Your task to perform on an android device: open chrome privacy settings Image 0: 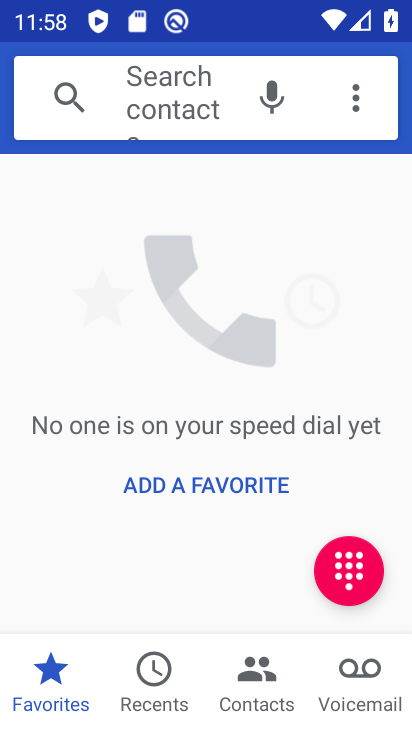
Step 0: press home button
Your task to perform on an android device: open chrome privacy settings Image 1: 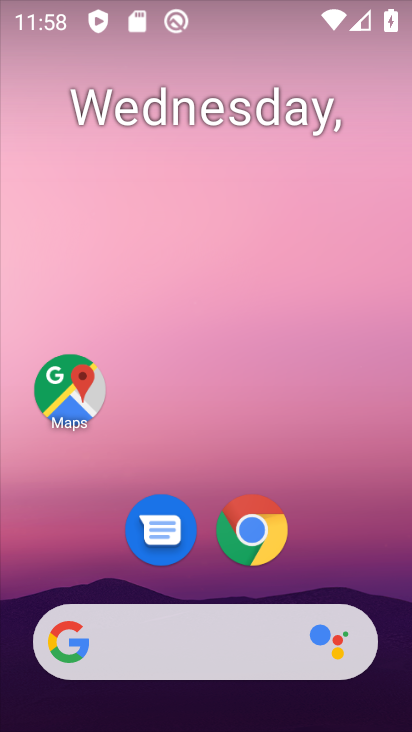
Step 1: click (236, 533)
Your task to perform on an android device: open chrome privacy settings Image 2: 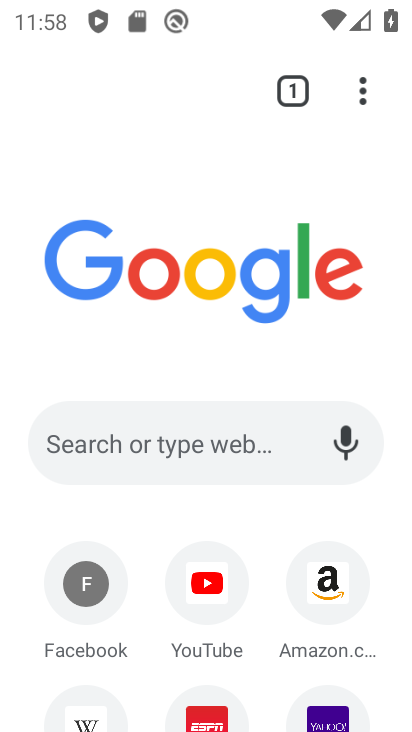
Step 2: drag from (353, 84) to (100, 554)
Your task to perform on an android device: open chrome privacy settings Image 3: 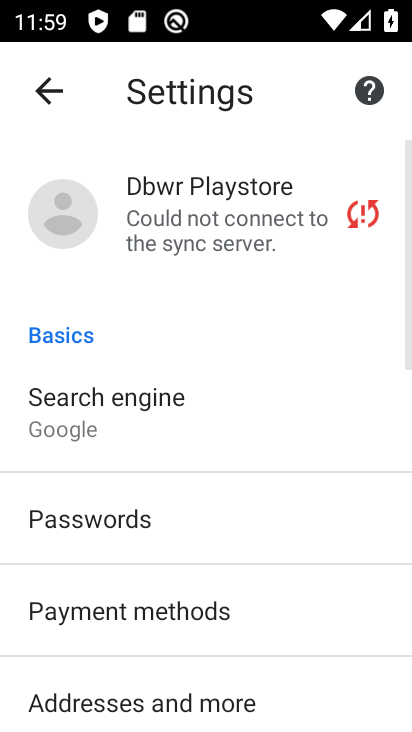
Step 3: drag from (78, 620) to (76, 138)
Your task to perform on an android device: open chrome privacy settings Image 4: 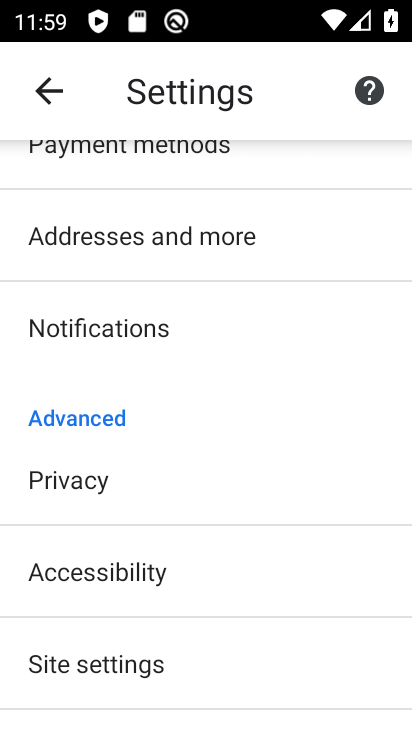
Step 4: click (70, 484)
Your task to perform on an android device: open chrome privacy settings Image 5: 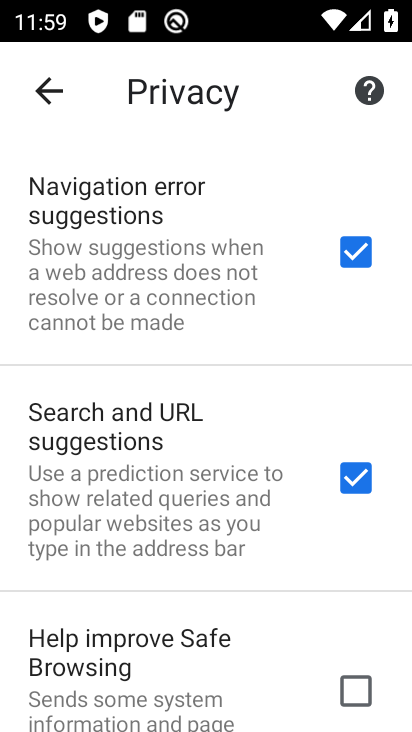
Step 5: task complete